Your task to perform on an android device: Show me productivity apps on the Play Store Image 0: 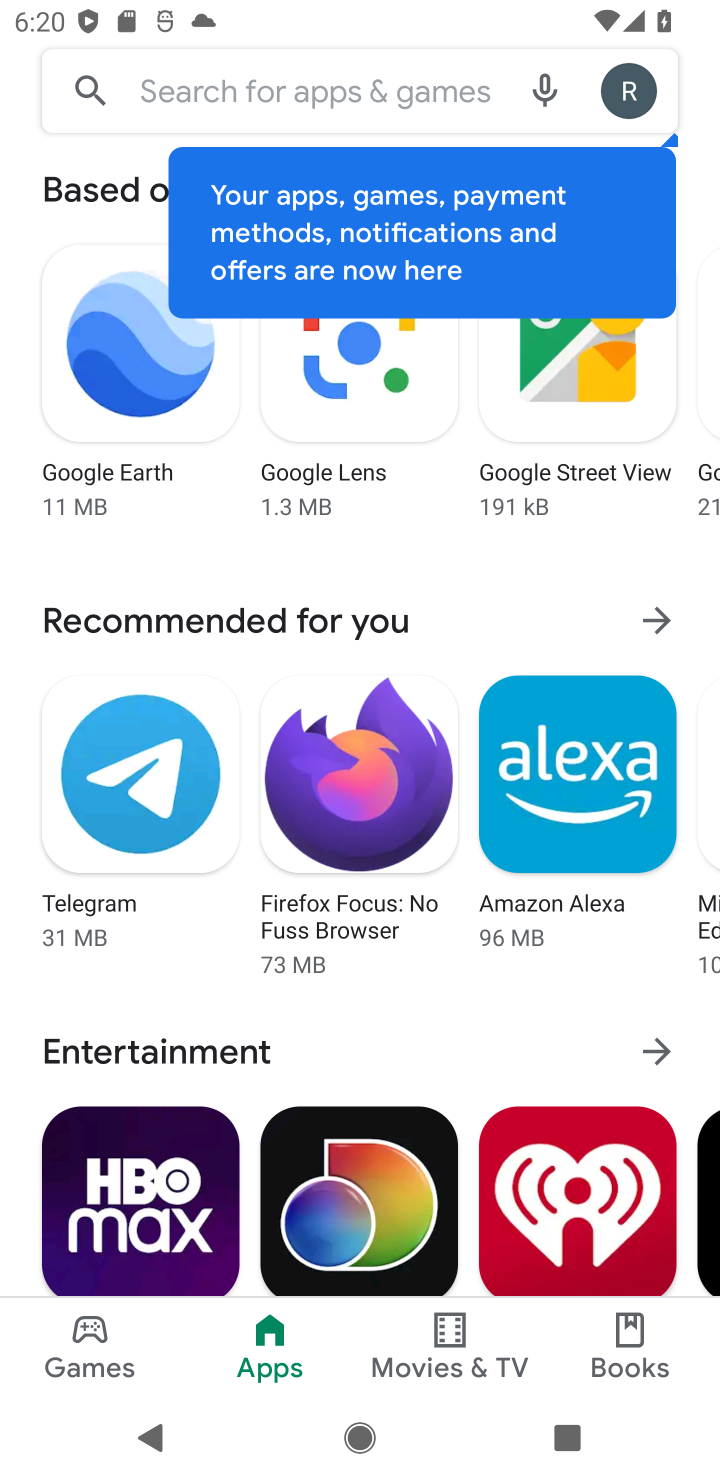
Step 0: press home button
Your task to perform on an android device: Show me productivity apps on the Play Store Image 1: 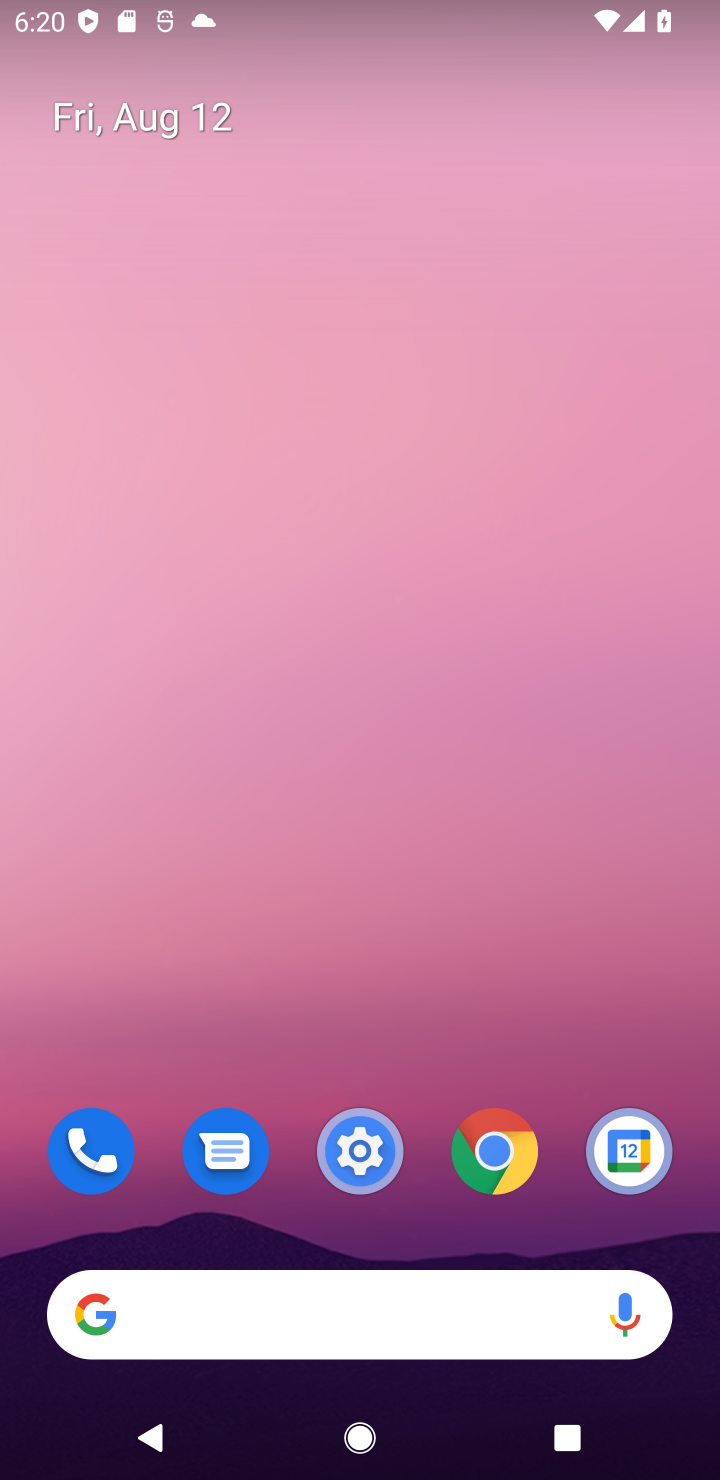
Step 1: drag from (405, 945) to (384, 75)
Your task to perform on an android device: Show me productivity apps on the Play Store Image 2: 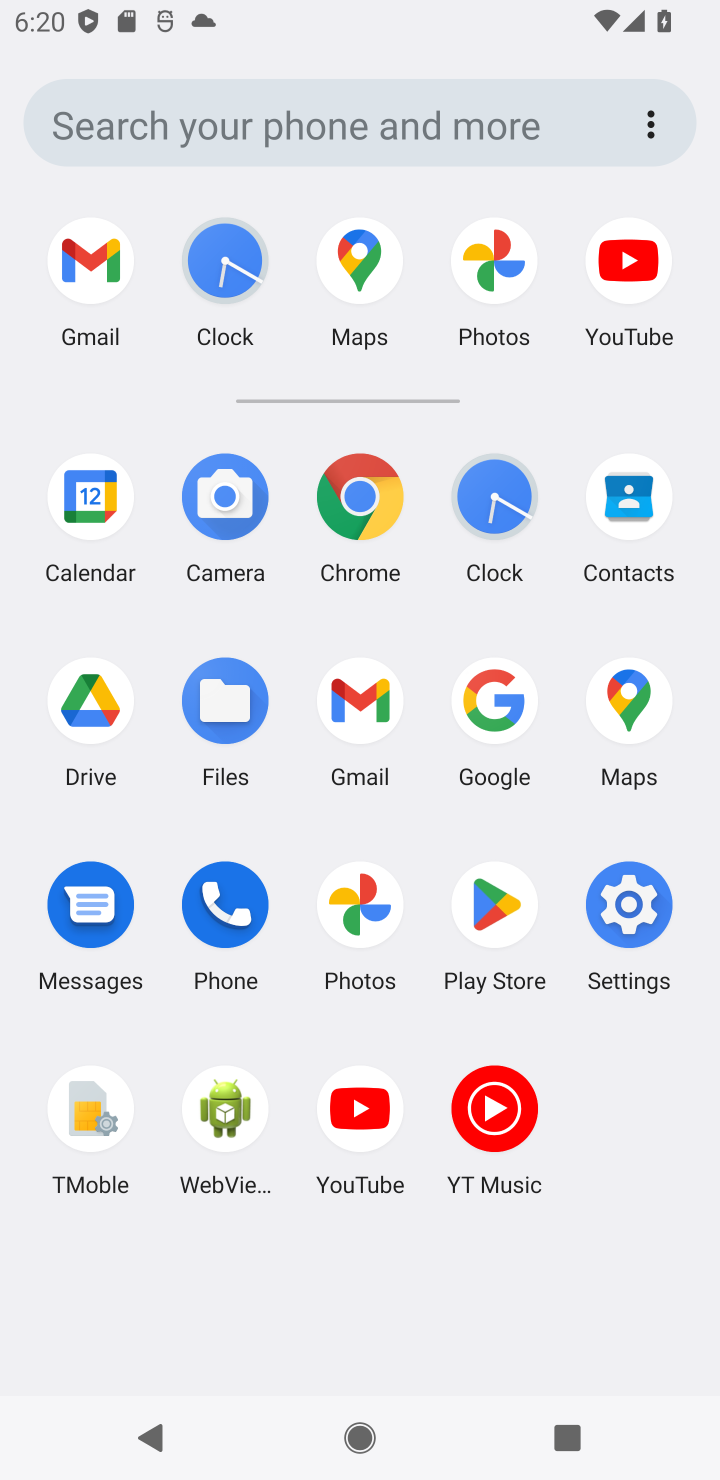
Step 2: click (484, 916)
Your task to perform on an android device: Show me productivity apps on the Play Store Image 3: 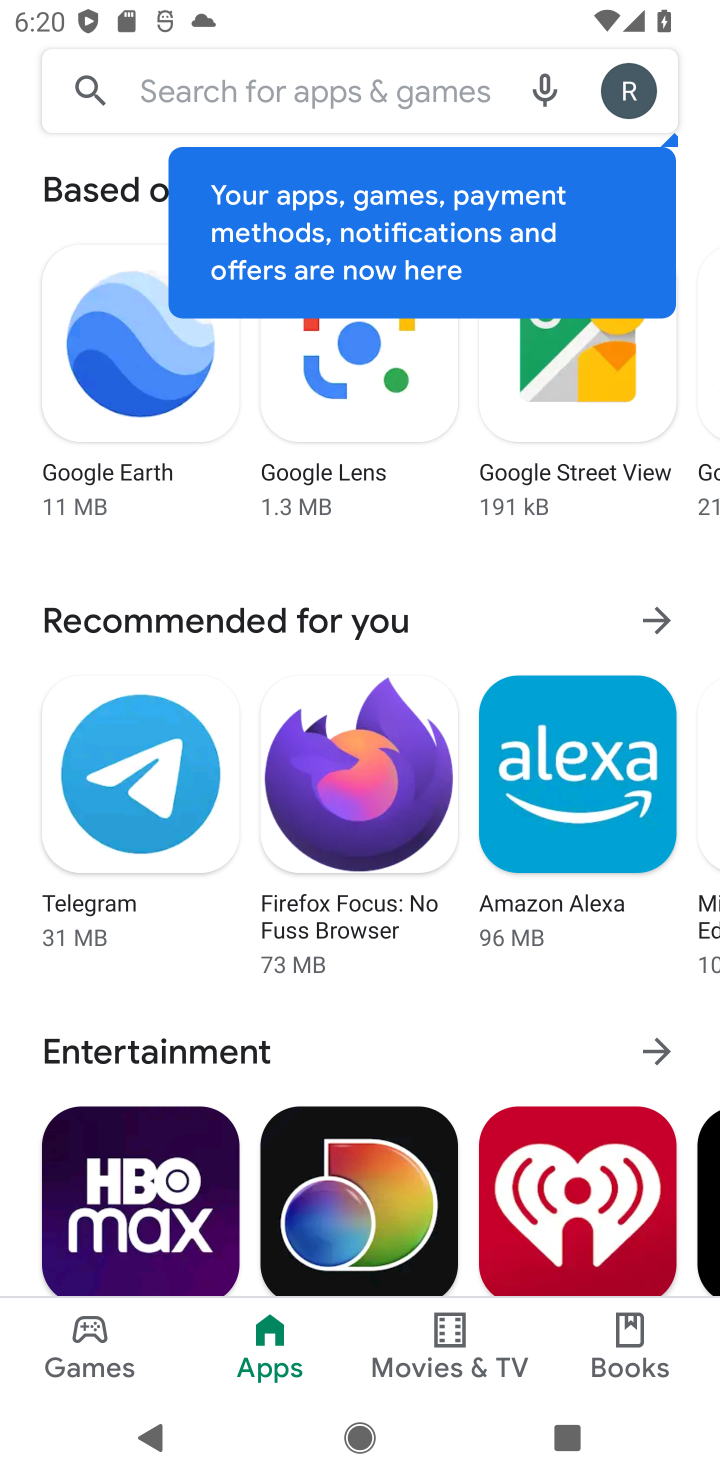
Step 3: click (249, 1368)
Your task to perform on an android device: Show me productivity apps on the Play Store Image 4: 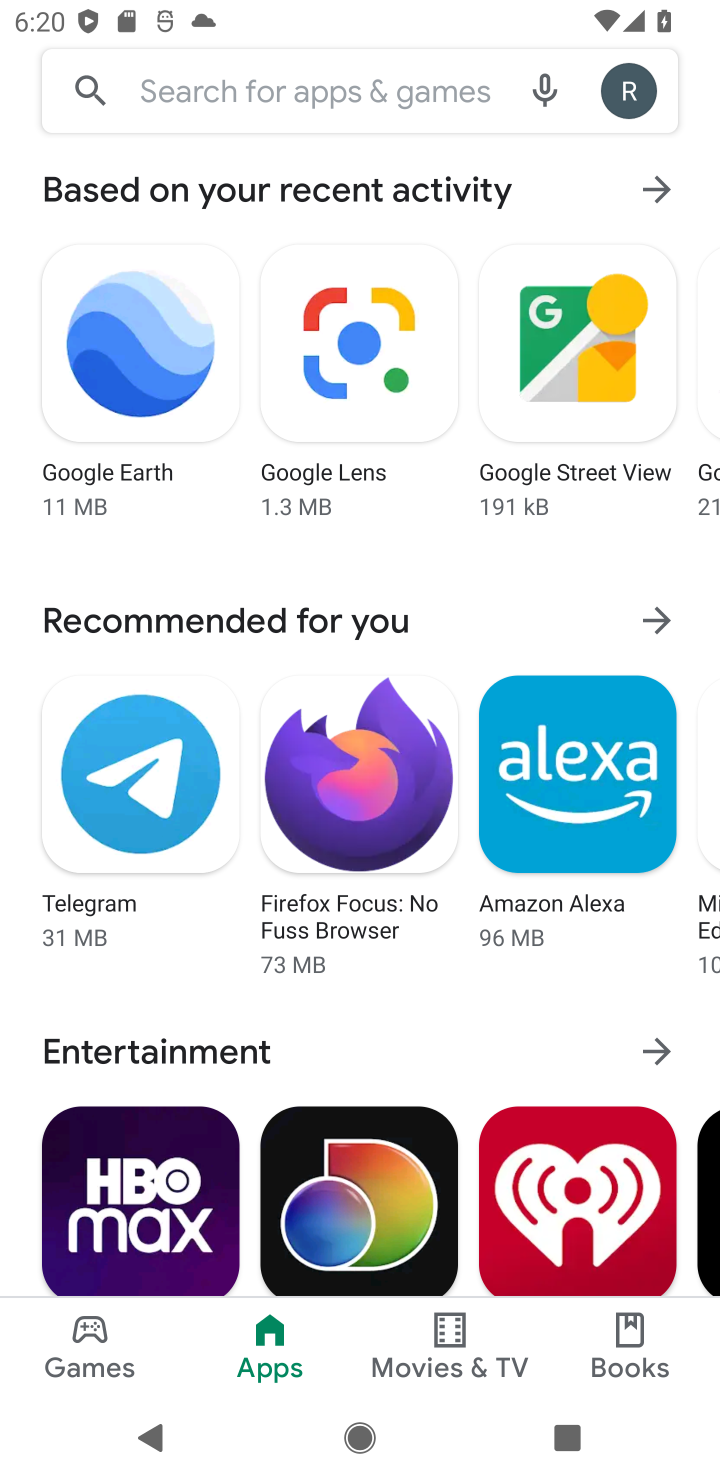
Step 4: task complete